Your task to perform on an android device: turn off location Image 0: 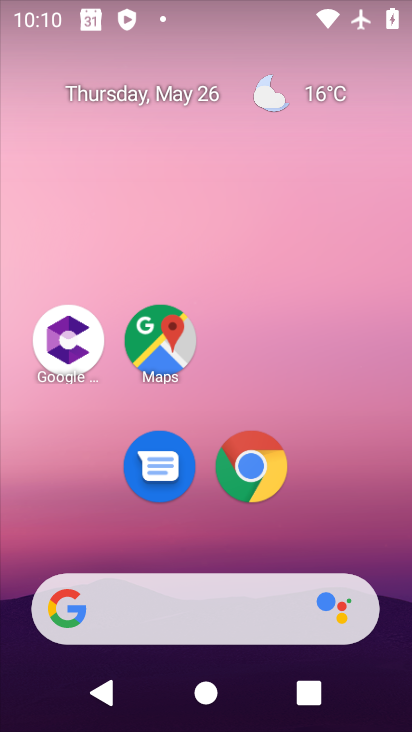
Step 0: drag from (362, 513) to (236, 110)
Your task to perform on an android device: turn off location Image 1: 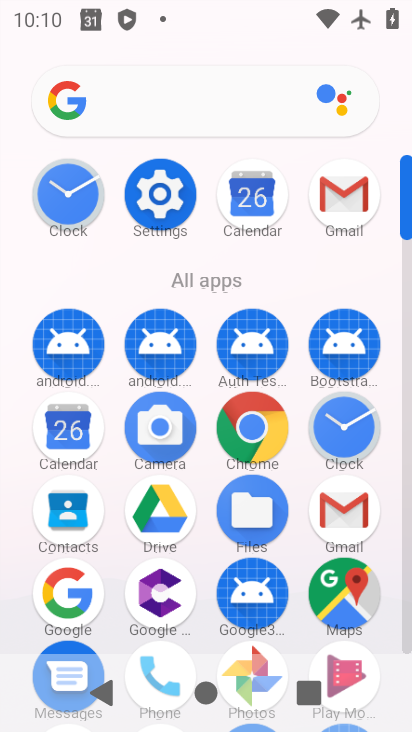
Step 1: click (158, 197)
Your task to perform on an android device: turn off location Image 2: 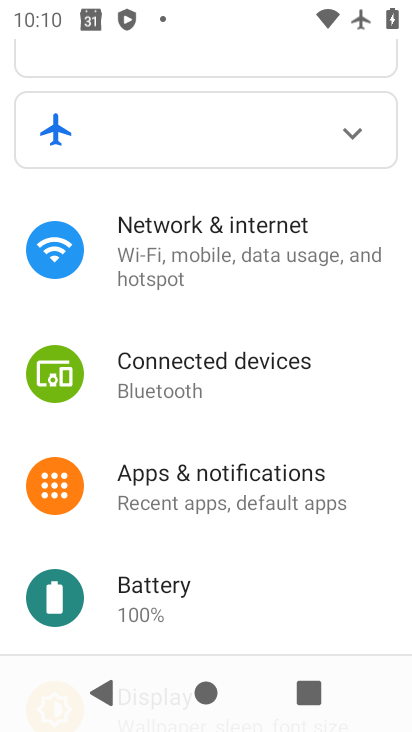
Step 2: drag from (232, 544) to (165, 249)
Your task to perform on an android device: turn off location Image 3: 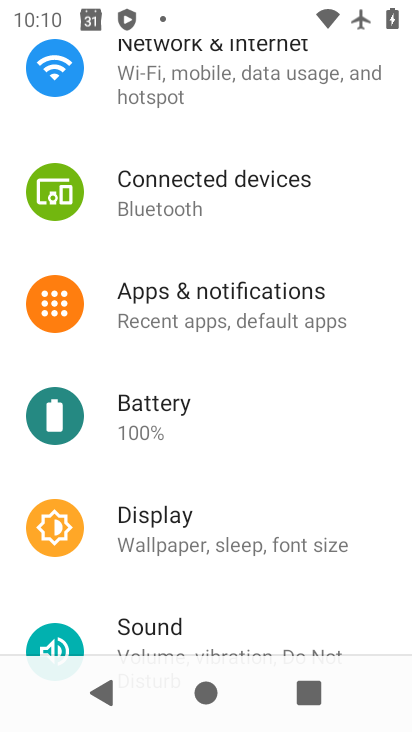
Step 3: drag from (201, 582) to (210, 313)
Your task to perform on an android device: turn off location Image 4: 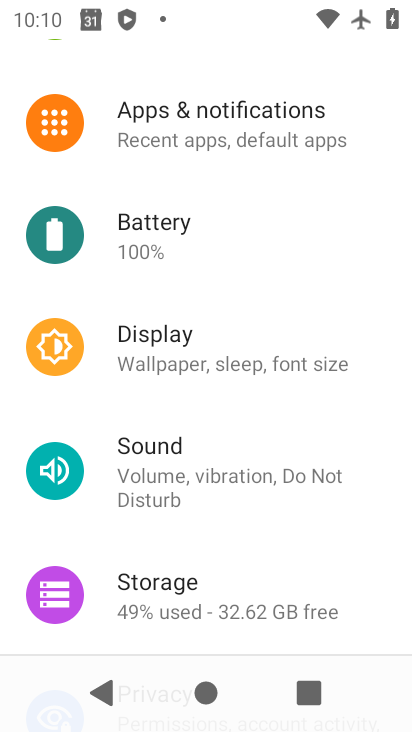
Step 4: drag from (200, 520) to (173, 175)
Your task to perform on an android device: turn off location Image 5: 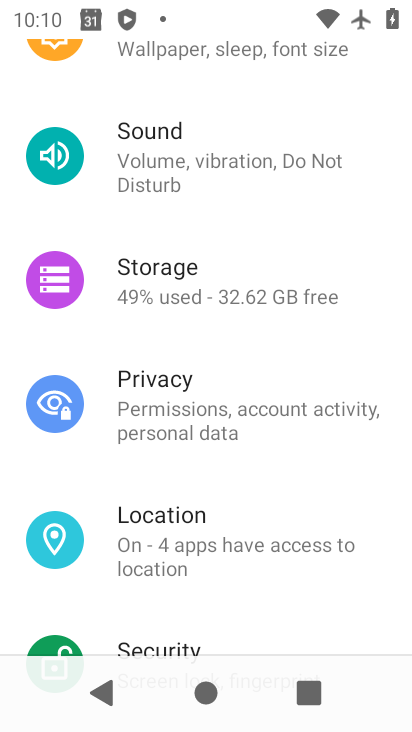
Step 5: click (159, 515)
Your task to perform on an android device: turn off location Image 6: 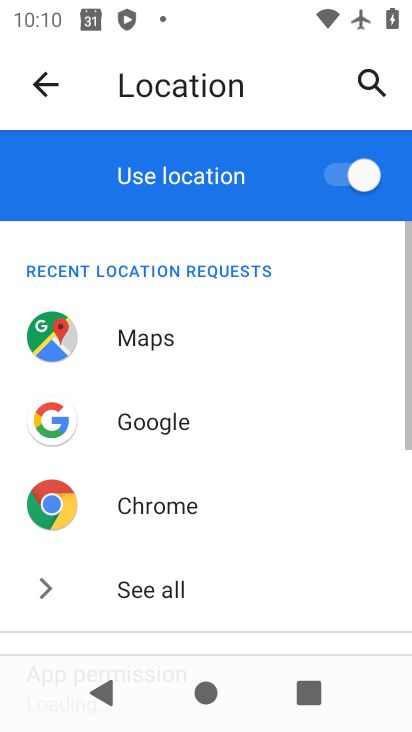
Step 6: click (361, 174)
Your task to perform on an android device: turn off location Image 7: 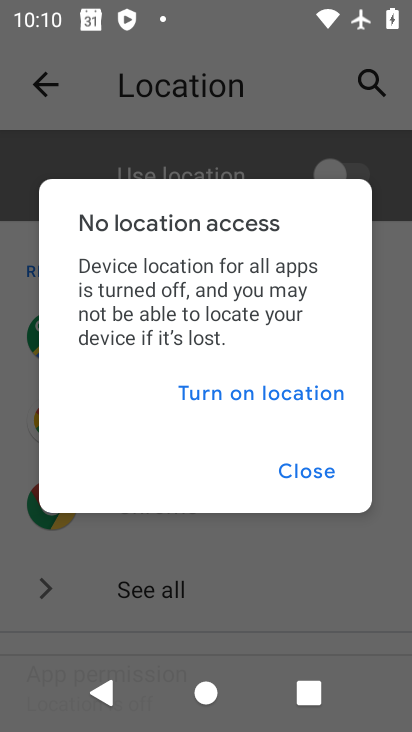
Step 7: click (290, 470)
Your task to perform on an android device: turn off location Image 8: 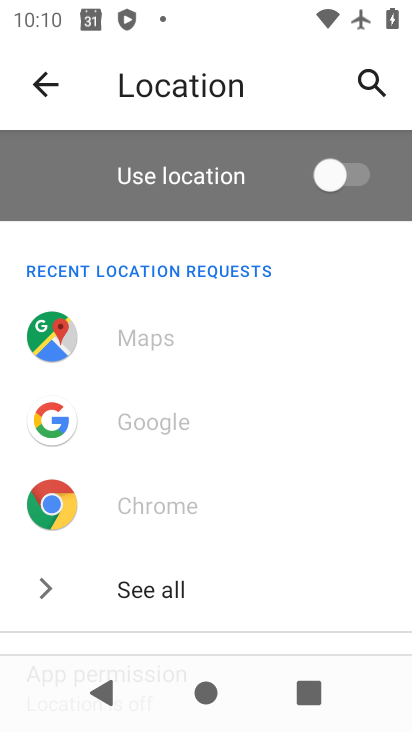
Step 8: task complete